Your task to perform on an android device: open a new tab in the chrome app Image 0: 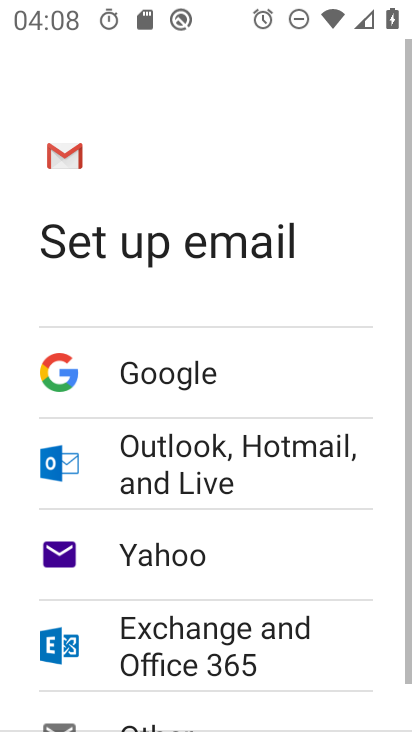
Step 0: press home button
Your task to perform on an android device: open a new tab in the chrome app Image 1: 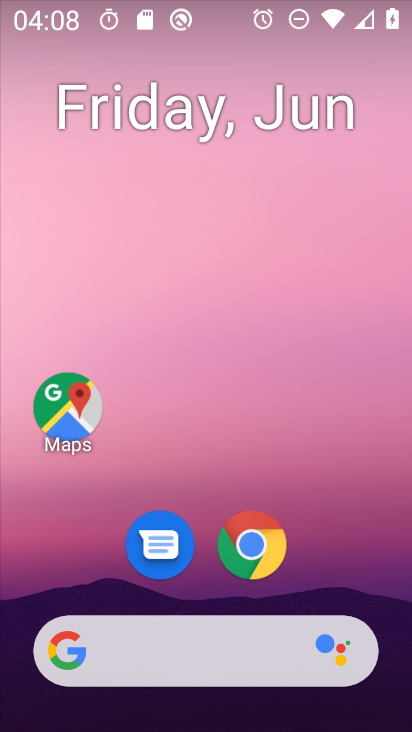
Step 1: click (251, 543)
Your task to perform on an android device: open a new tab in the chrome app Image 2: 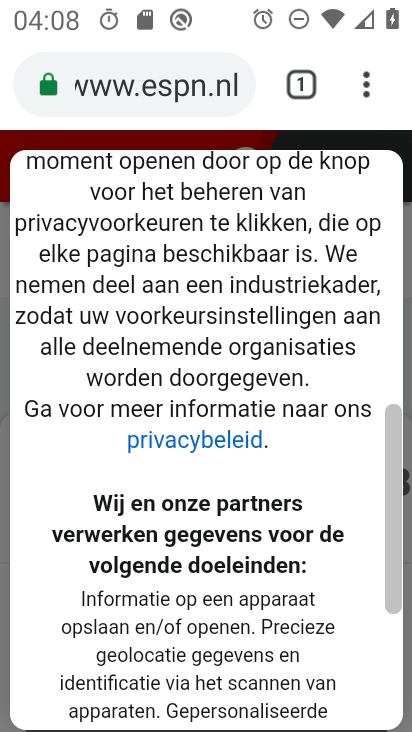
Step 2: click (369, 57)
Your task to perform on an android device: open a new tab in the chrome app Image 3: 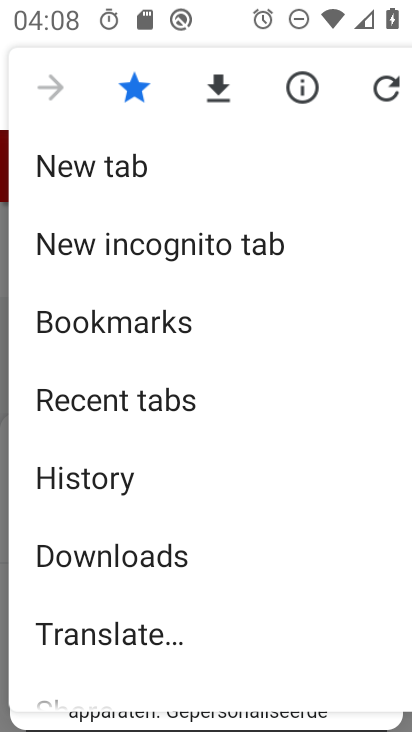
Step 3: click (74, 173)
Your task to perform on an android device: open a new tab in the chrome app Image 4: 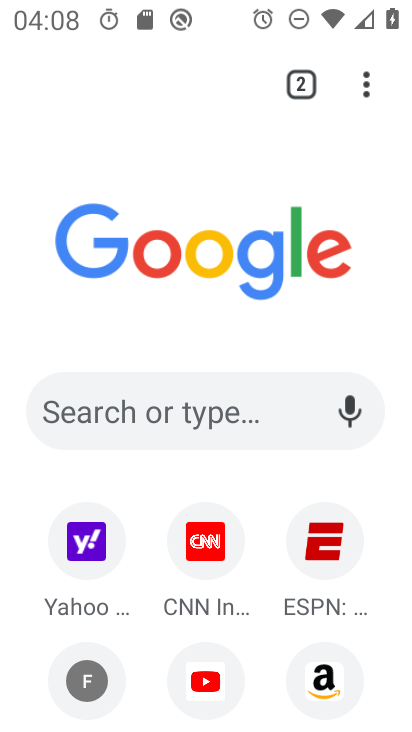
Step 4: task complete